Your task to perform on an android device: Open Chrome and go to settings Image 0: 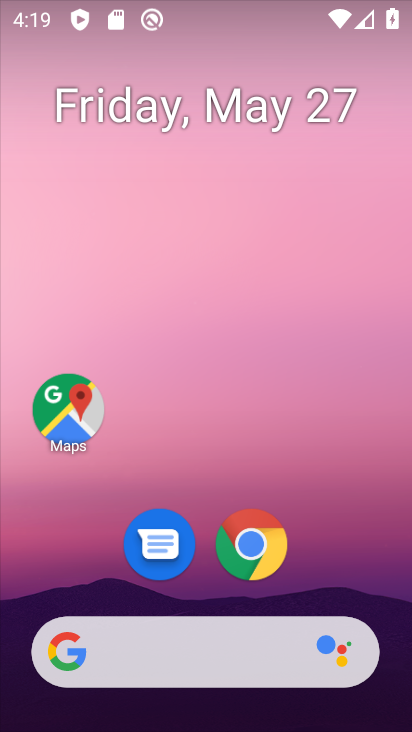
Step 0: click (171, 171)
Your task to perform on an android device: Open Chrome and go to settings Image 1: 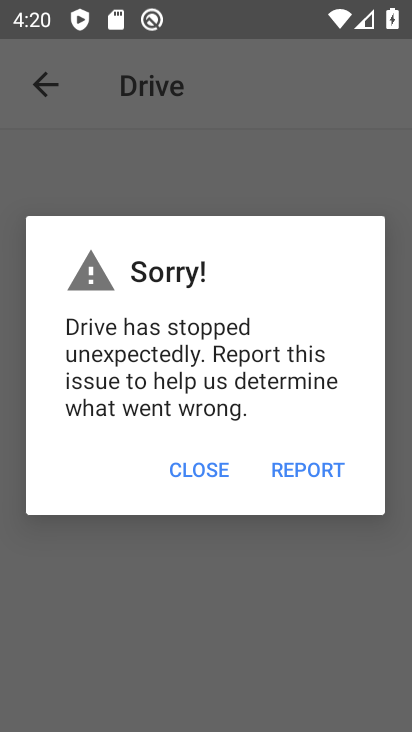
Step 1: press home button
Your task to perform on an android device: Open Chrome and go to settings Image 2: 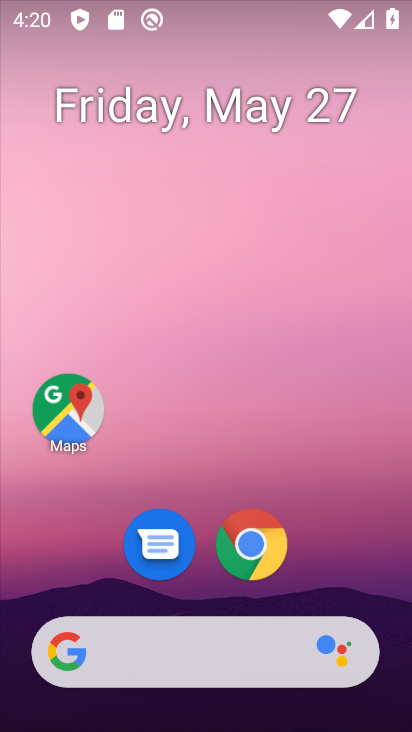
Step 2: click (248, 565)
Your task to perform on an android device: Open Chrome and go to settings Image 3: 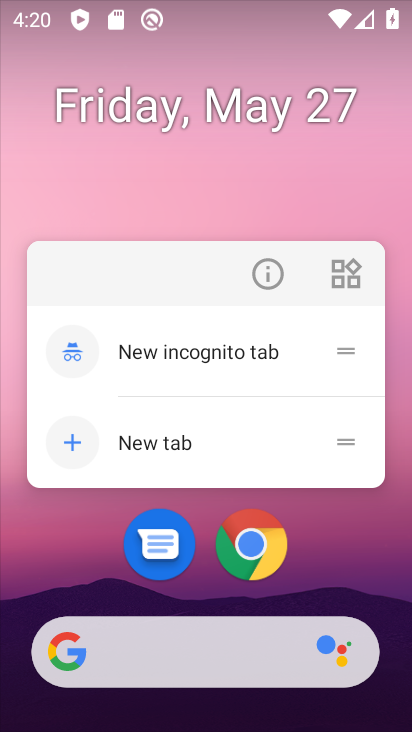
Step 3: click (250, 546)
Your task to perform on an android device: Open Chrome and go to settings Image 4: 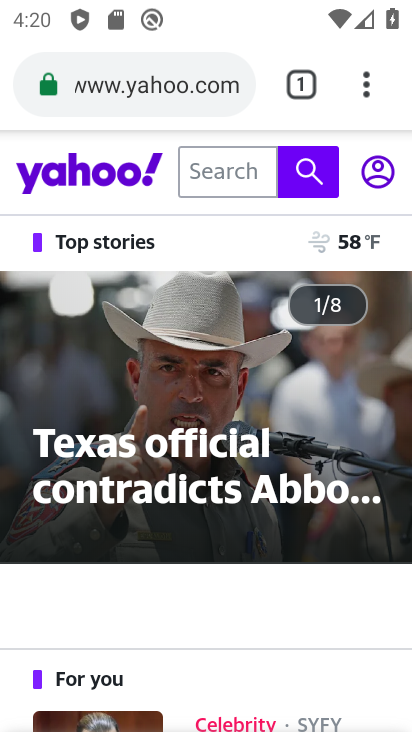
Step 4: task complete